Your task to perform on an android device: change your default location settings in chrome Image 0: 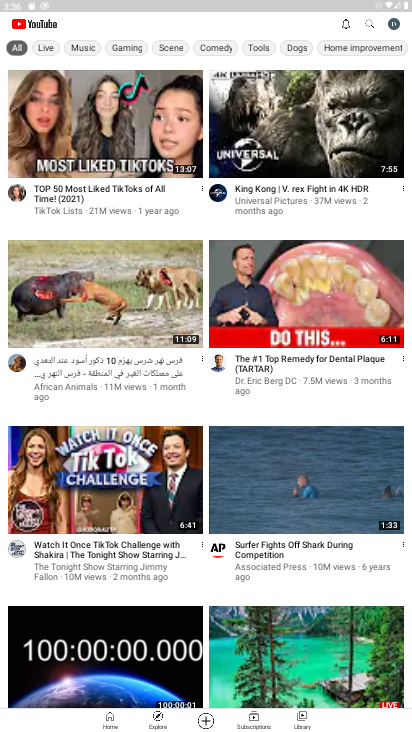
Step 0: press home button
Your task to perform on an android device: change your default location settings in chrome Image 1: 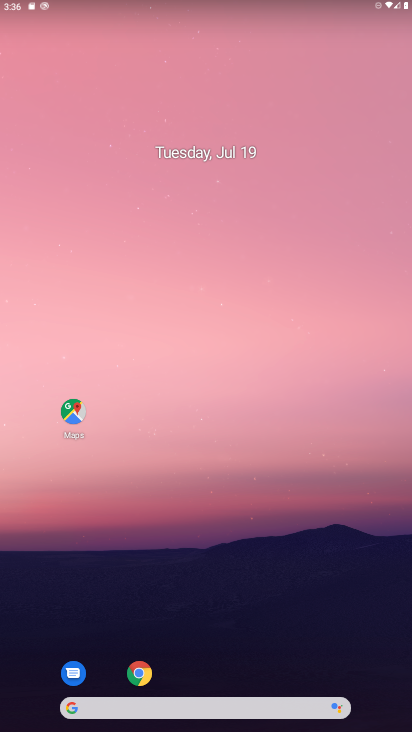
Step 1: drag from (193, 656) to (204, 151)
Your task to perform on an android device: change your default location settings in chrome Image 2: 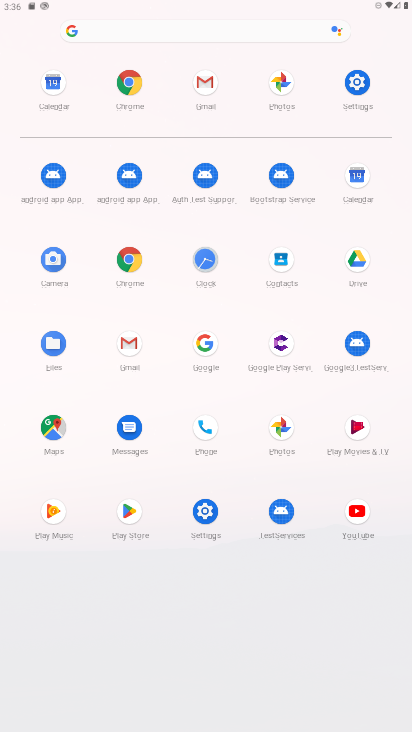
Step 2: click (129, 268)
Your task to perform on an android device: change your default location settings in chrome Image 3: 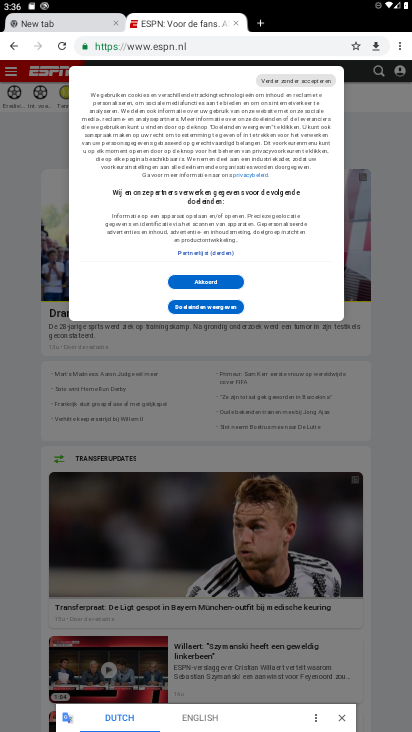
Step 3: click (400, 44)
Your task to perform on an android device: change your default location settings in chrome Image 4: 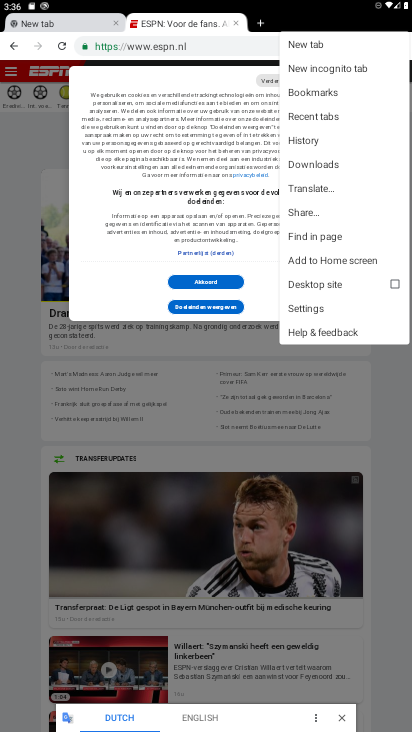
Step 4: click (305, 307)
Your task to perform on an android device: change your default location settings in chrome Image 5: 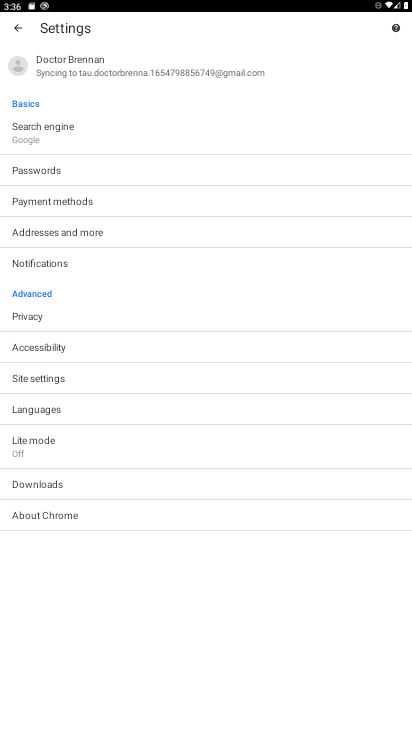
Step 5: click (41, 374)
Your task to perform on an android device: change your default location settings in chrome Image 6: 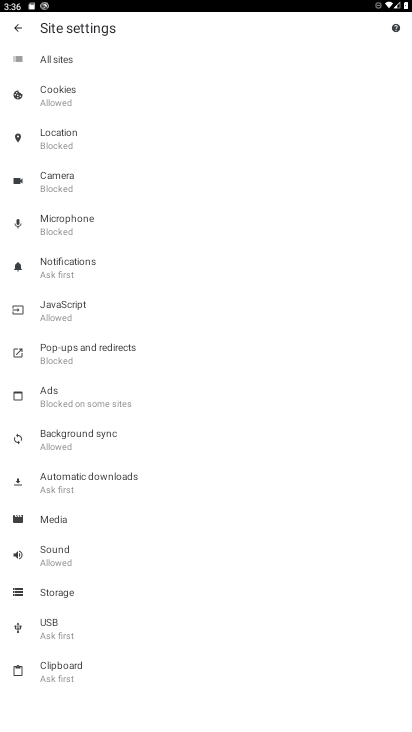
Step 6: click (70, 141)
Your task to perform on an android device: change your default location settings in chrome Image 7: 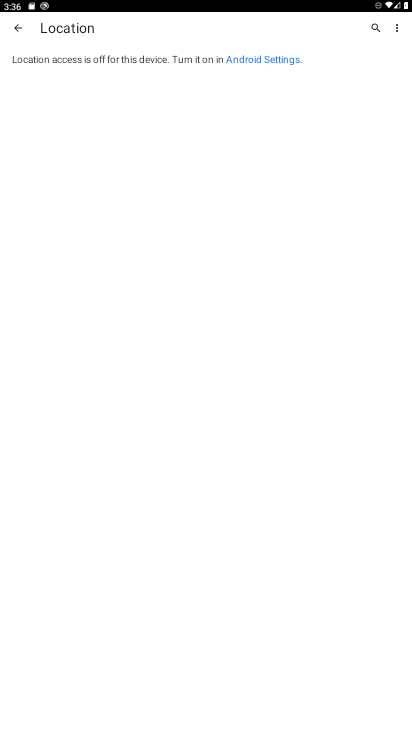
Step 7: click (260, 58)
Your task to perform on an android device: change your default location settings in chrome Image 8: 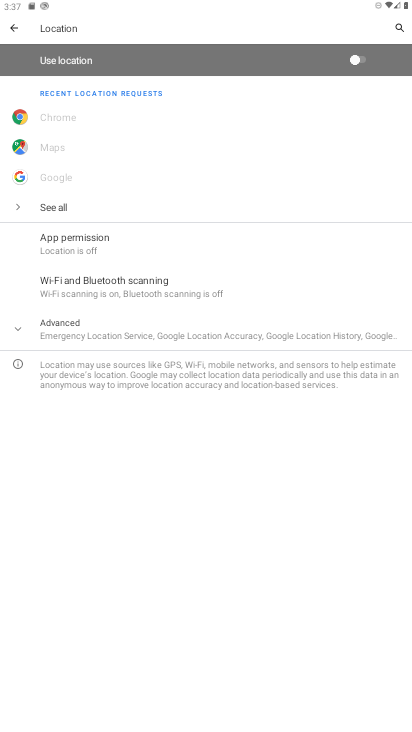
Step 8: click (381, 59)
Your task to perform on an android device: change your default location settings in chrome Image 9: 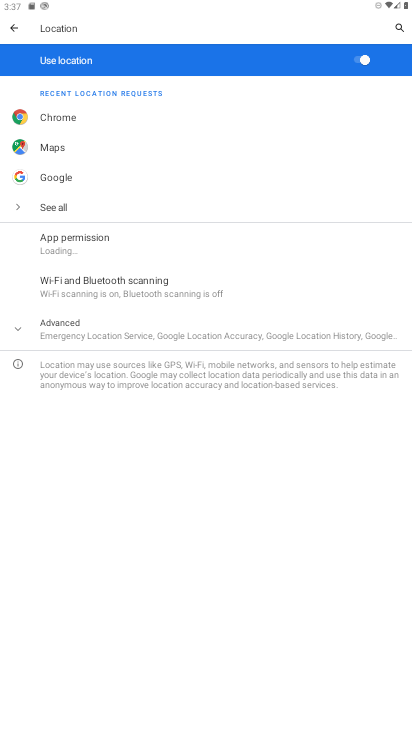
Step 9: task complete